Your task to perform on an android device: open app "ColorNote Notepad Notes" Image 0: 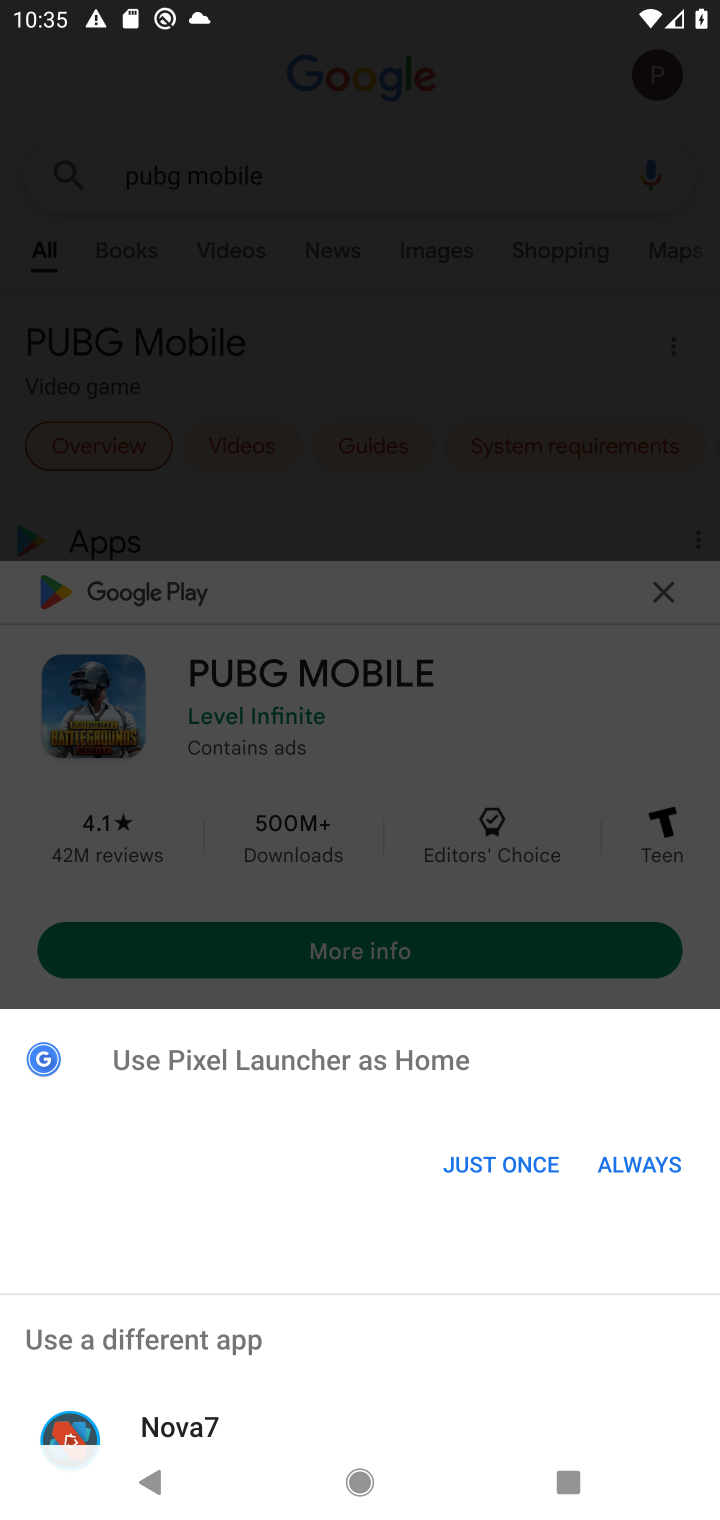
Step 0: press home button
Your task to perform on an android device: open app "ColorNote Notepad Notes" Image 1: 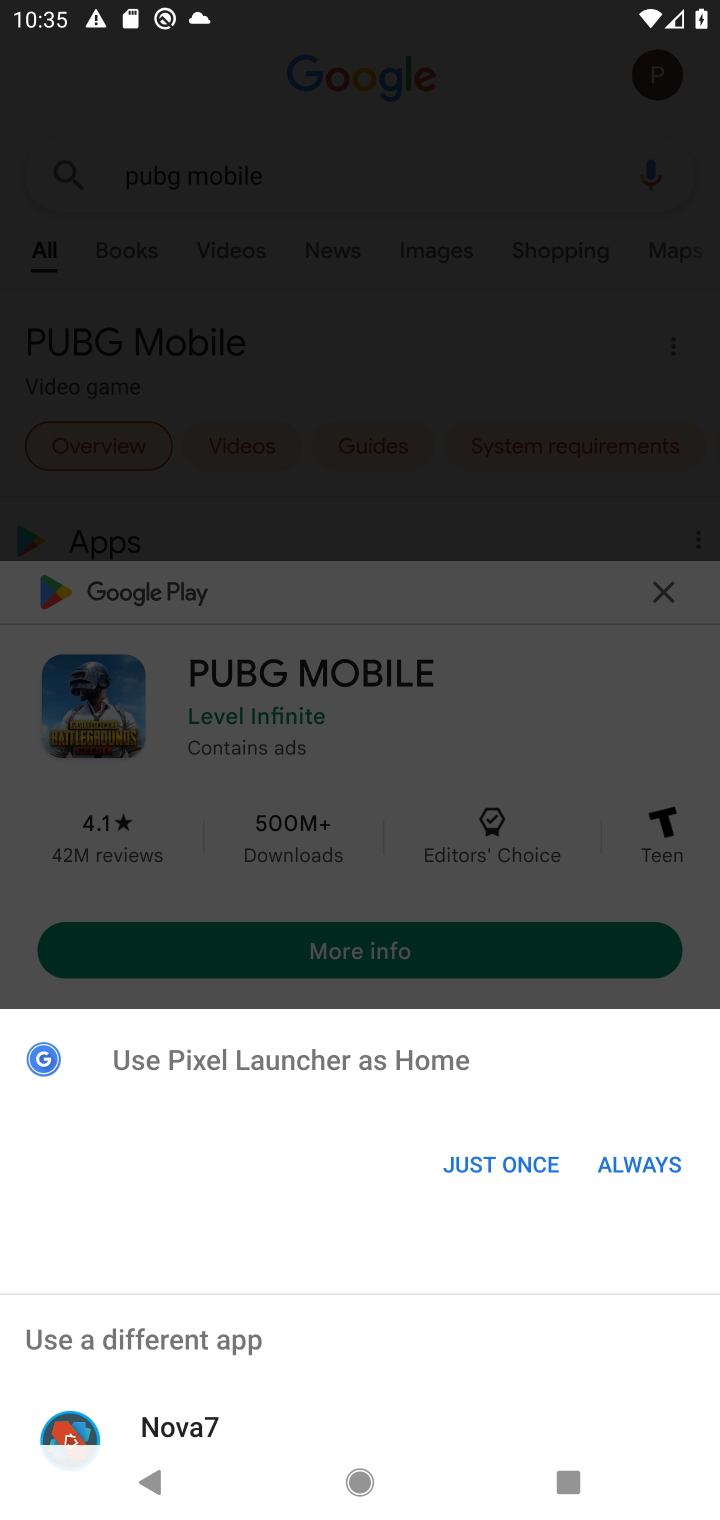
Step 1: click (509, 1144)
Your task to perform on an android device: open app "ColorNote Notepad Notes" Image 2: 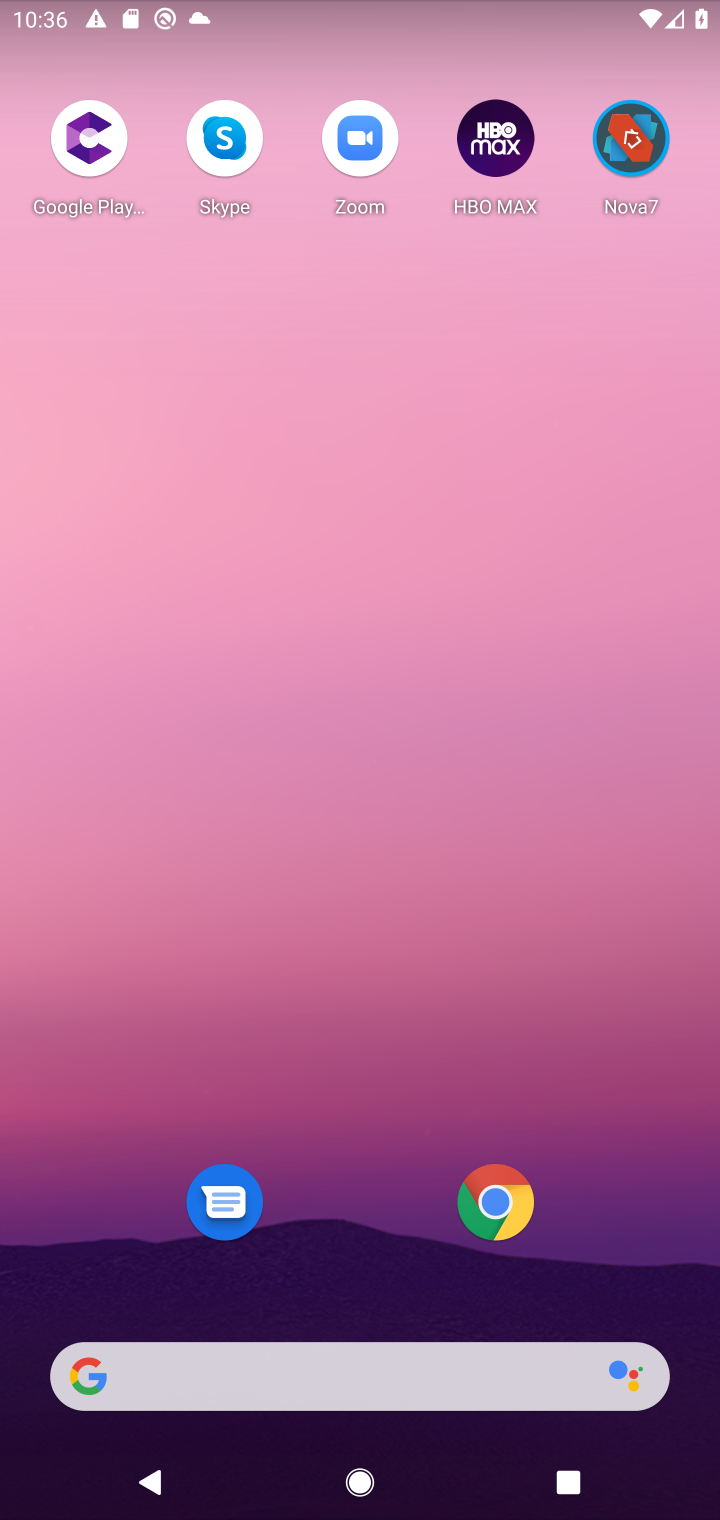
Step 2: click (342, 1363)
Your task to perform on an android device: open app "ColorNote Notepad Notes" Image 3: 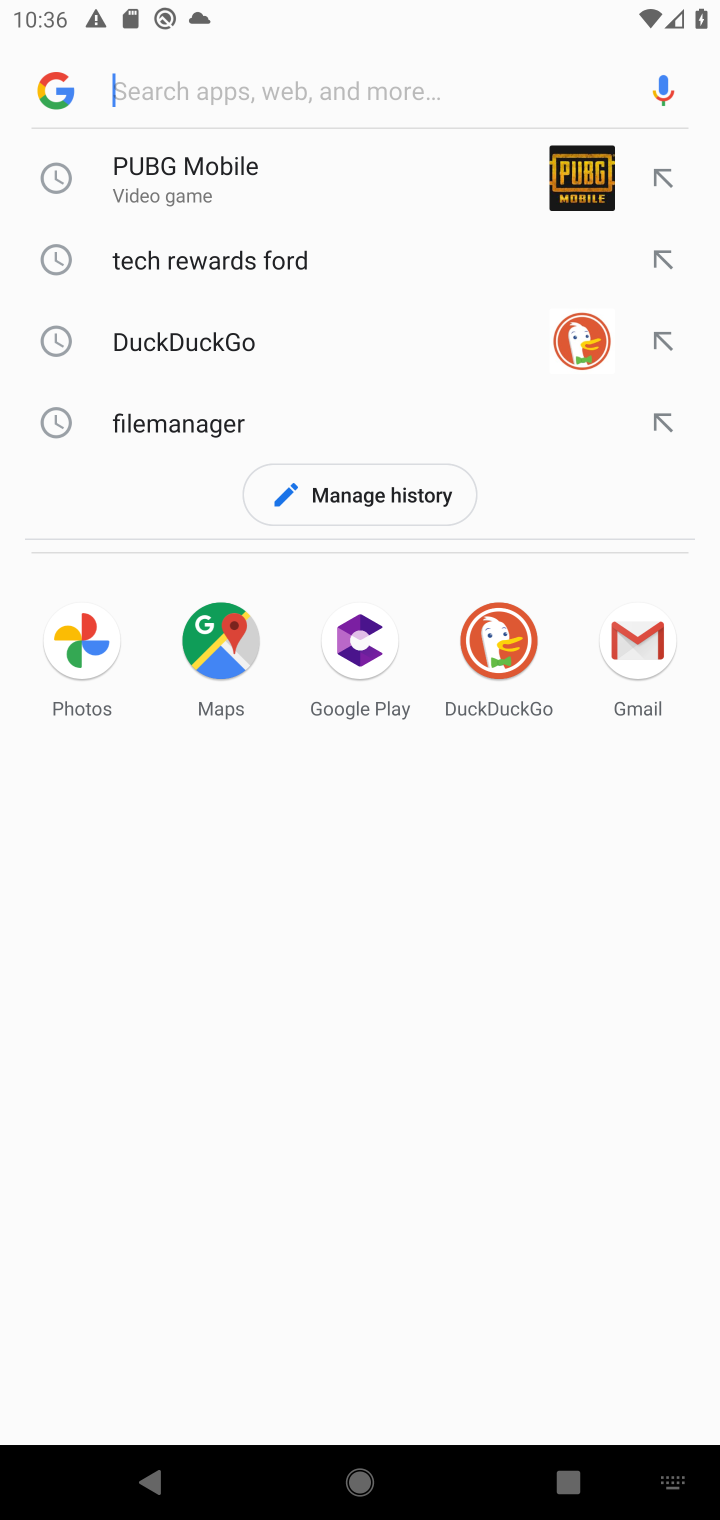
Step 3: type "colornote notes"
Your task to perform on an android device: open app "ColorNote Notepad Notes" Image 4: 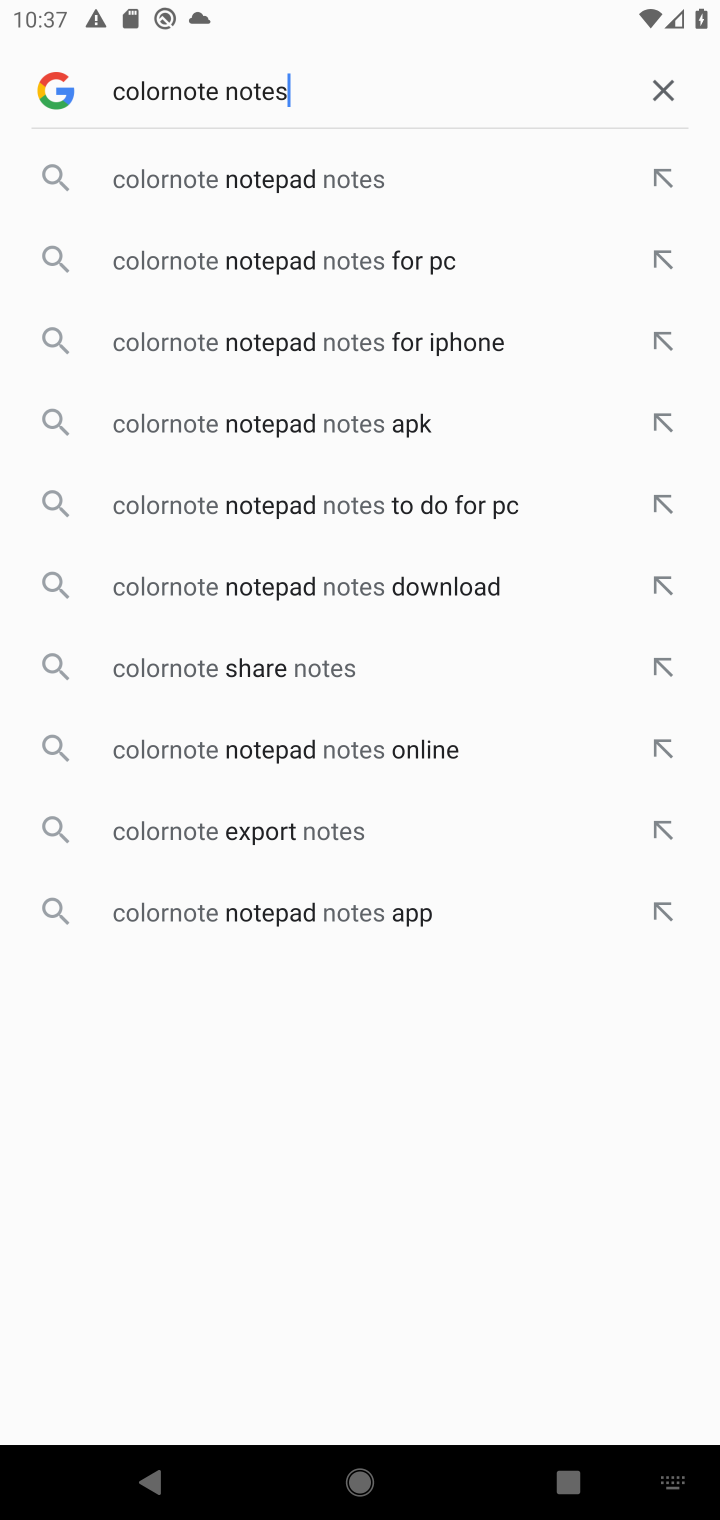
Step 4: click (274, 179)
Your task to perform on an android device: open app "ColorNote Notepad Notes" Image 5: 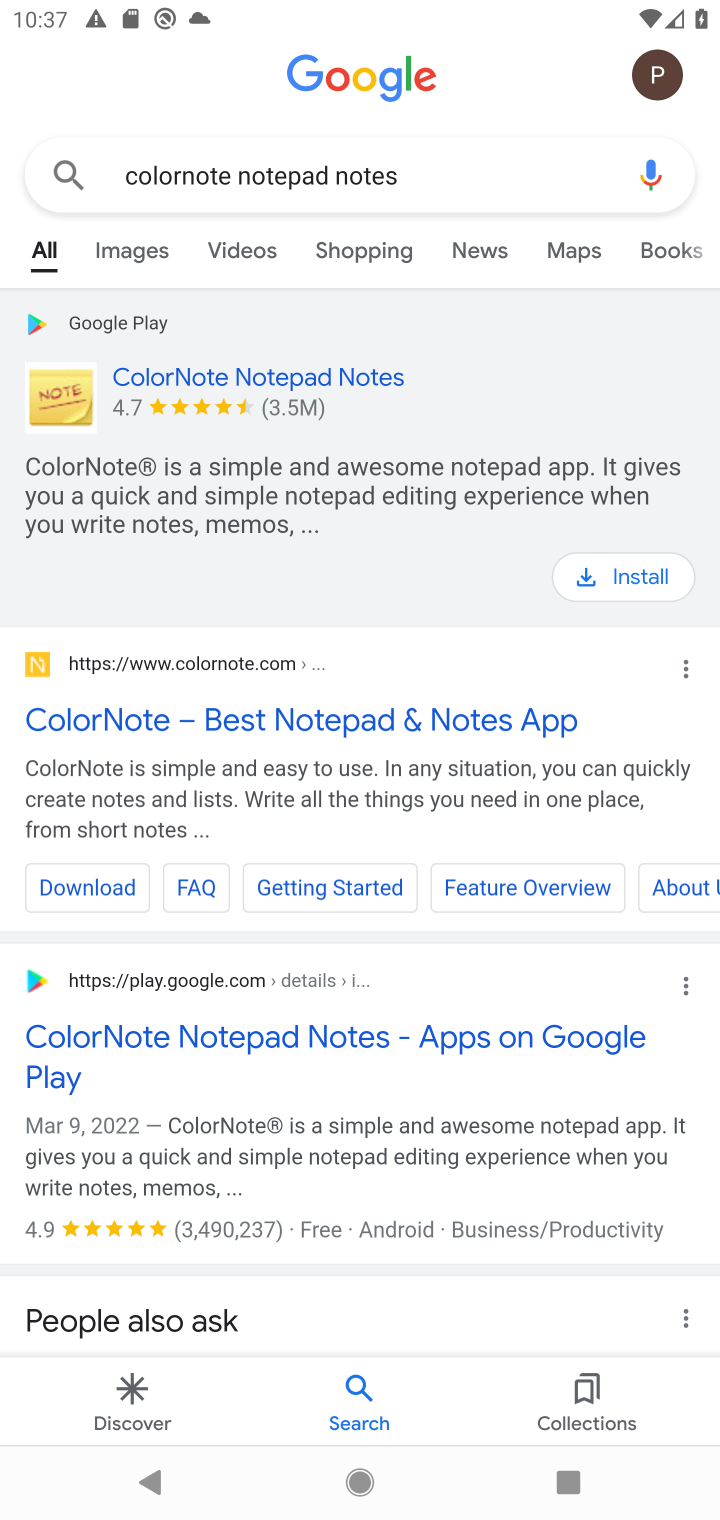
Step 5: click (571, 566)
Your task to perform on an android device: open app "ColorNote Notepad Notes" Image 6: 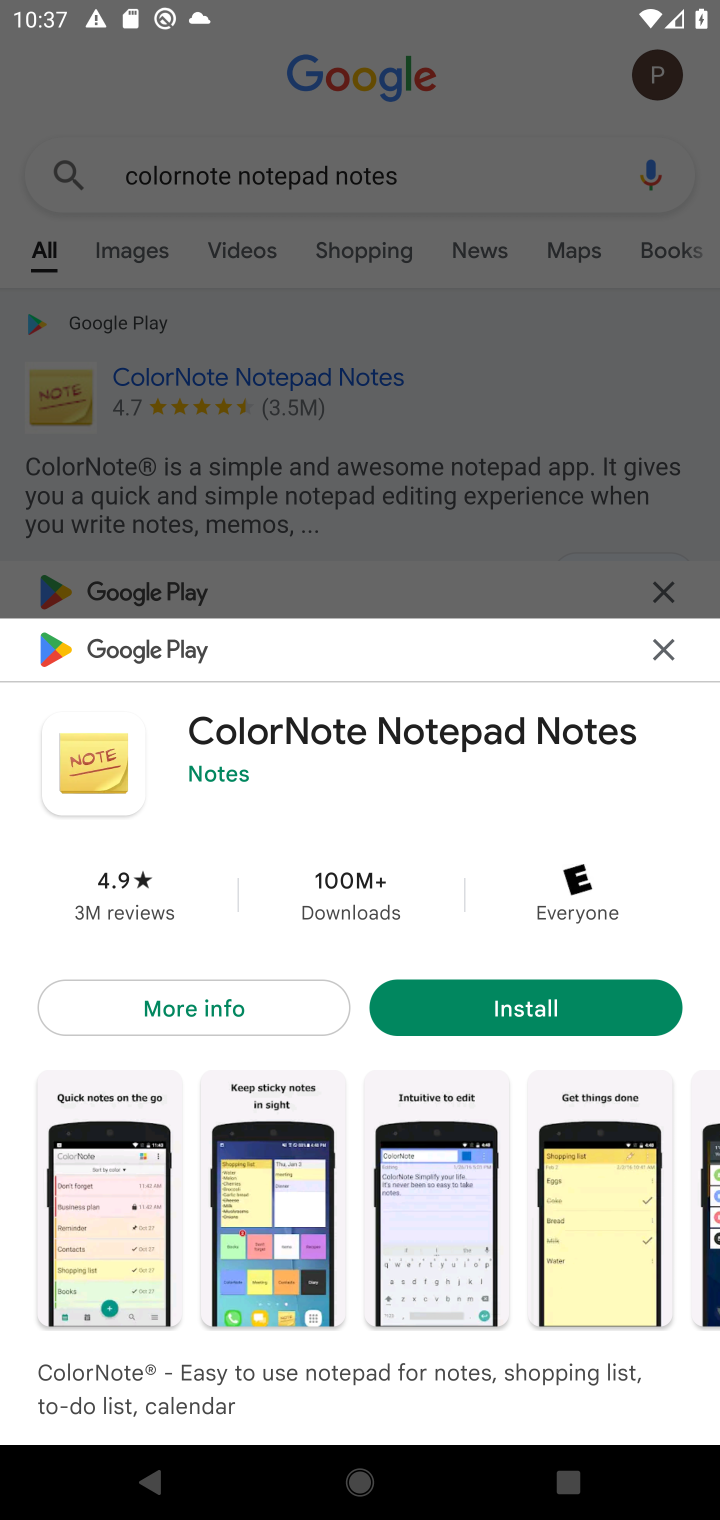
Step 6: click (578, 990)
Your task to perform on an android device: open app "ColorNote Notepad Notes" Image 7: 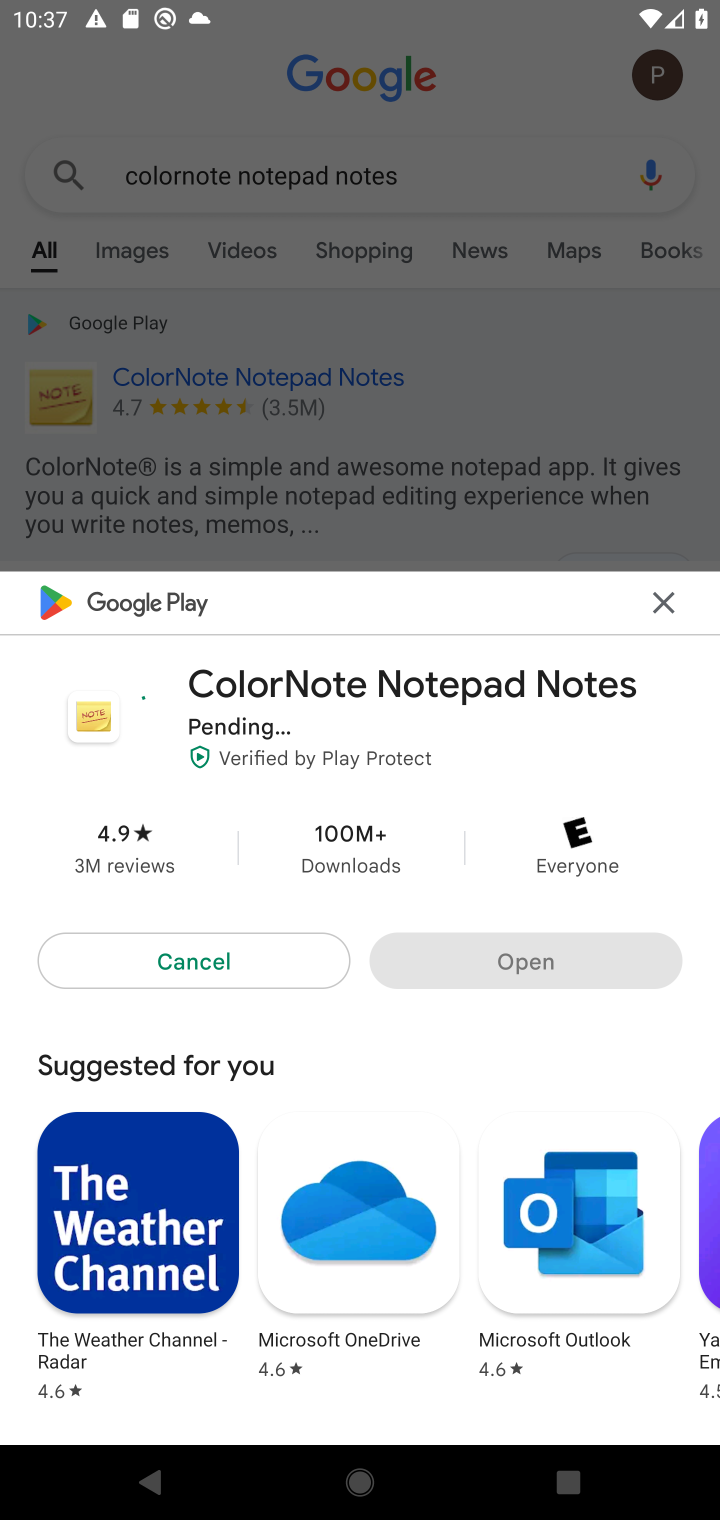
Step 7: task complete